Your task to perform on an android device: Open location settings Image 0: 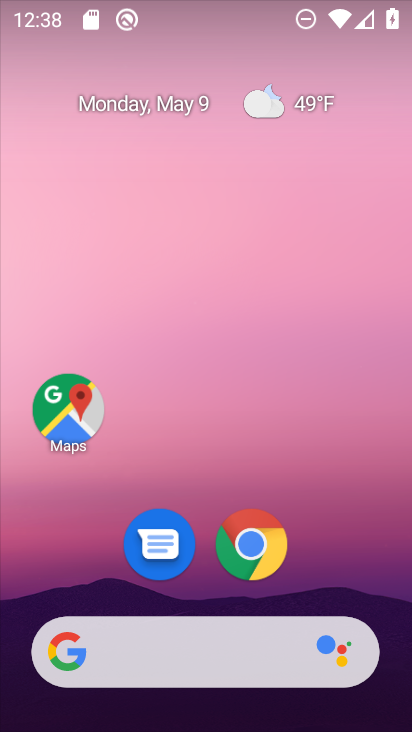
Step 0: drag from (340, 546) to (410, 150)
Your task to perform on an android device: Open location settings Image 1: 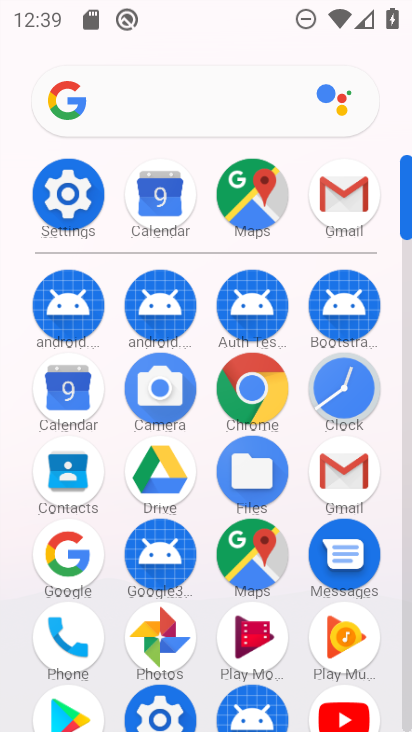
Step 1: click (40, 206)
Your task to perform on an android device: Open location settings Image 2: 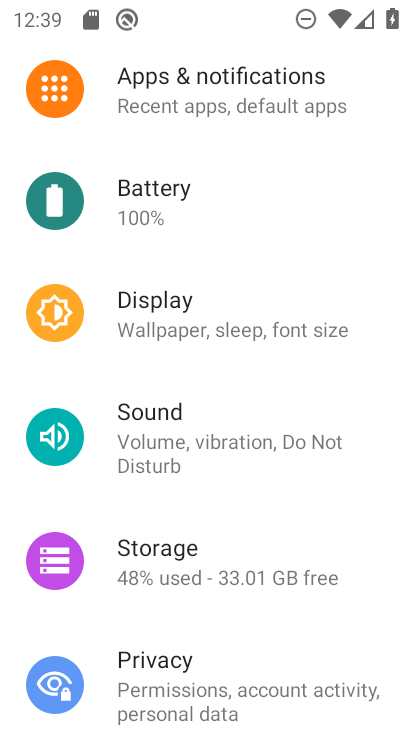
Step 2: drag from (237, 637) to (315, 178)
Your task to perform on an android device: Open location settings Image 3: 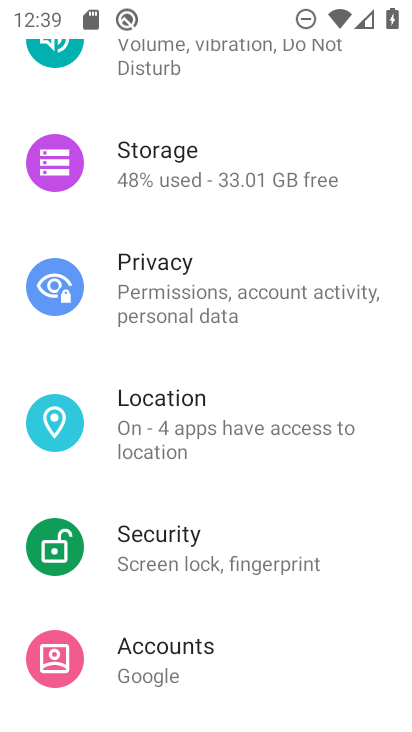
Step 3: click (235, 417)
Your task to perform on an android device: Open location settings Image 4: 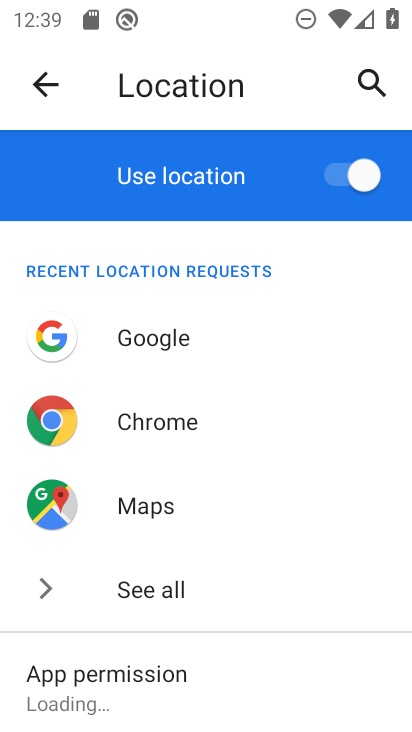
Step 4: task complete